Your task to perform on an android device: Go to ESPN.com Image 0: 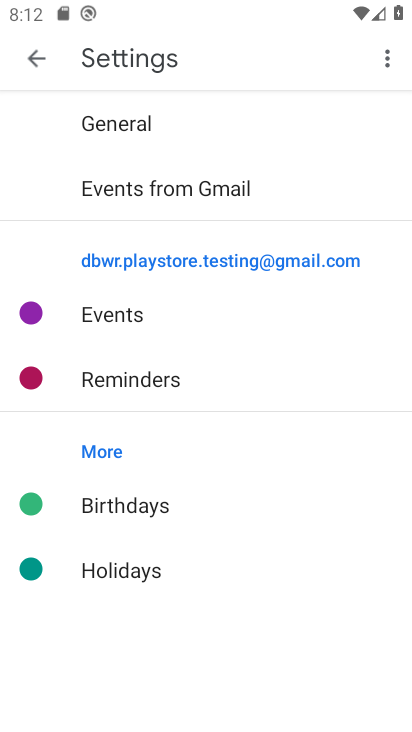
Step 0: press home button
Your task to perform on an android device: Go to ESPN.com Image 1: 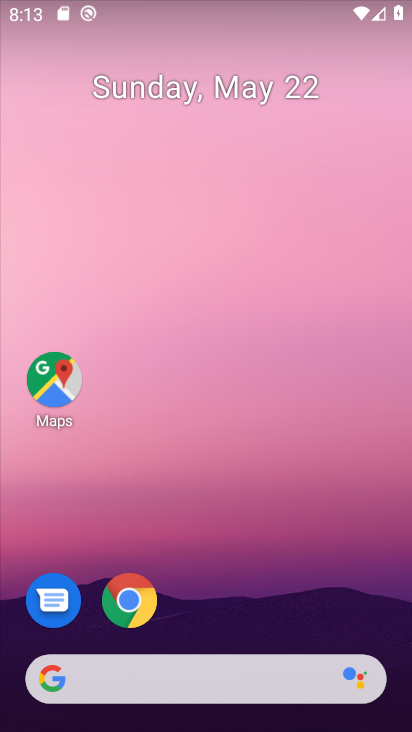
Step 1: click (125, 592)
Your task to perform on an android device: Go to ESPN.com Image 2: 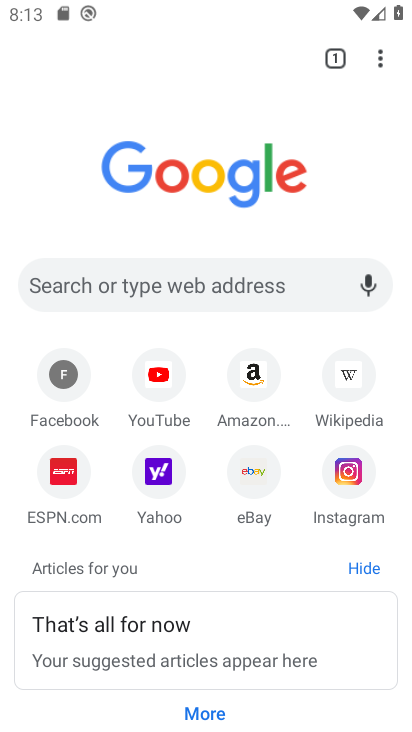
Step 2: click (80, 481)
Your task to perform on an android device: Go to ESPN.com Image 3: 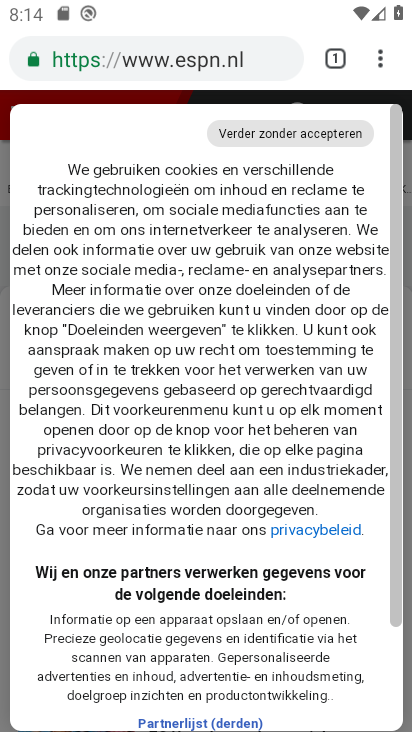
Step 3: task complete